Your task to perform on an android device: stop showing notifications on the lock screen Image 0: 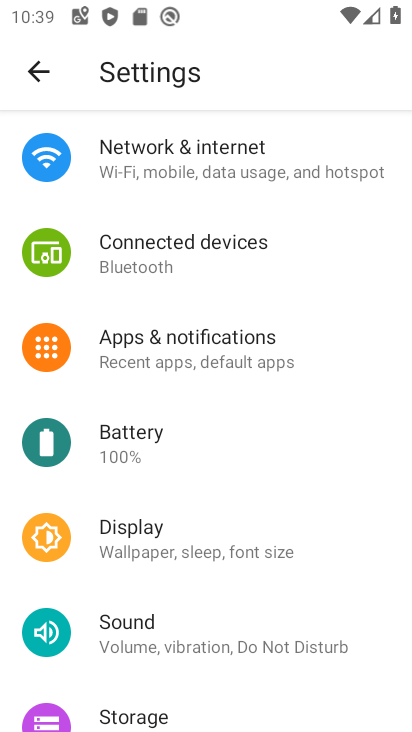
Step 0: click (198, 335)
Your task to perform on an android device: stop showing notifications on the lock screen Image 1: 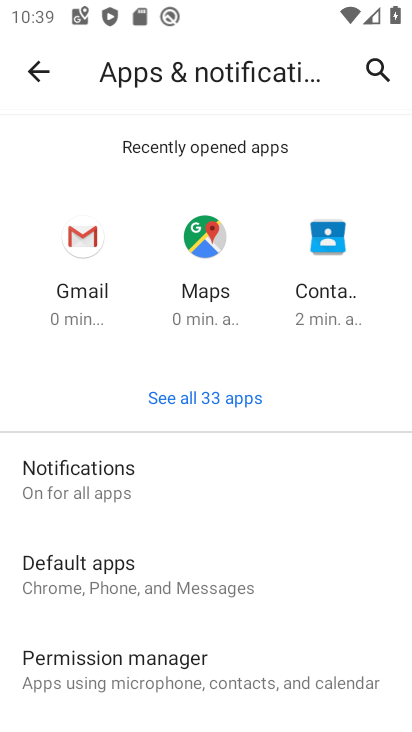
Step 1: click (149, 487)
Your task to perform on an android device: stop showing notifications on the lock screen Image 2: 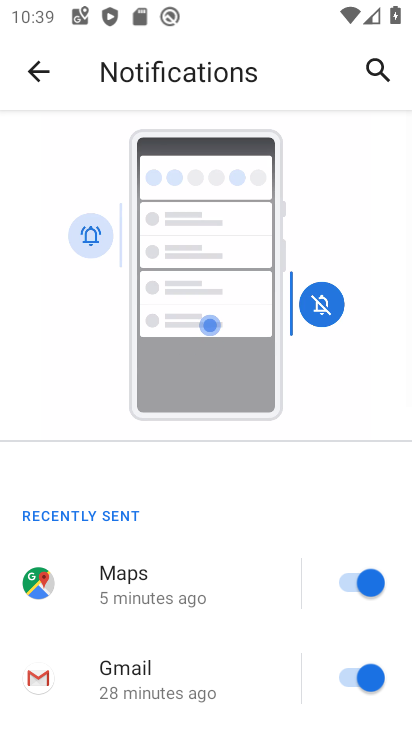
Step 2: drag from (242, 574) to (228, 169)
Your task to perform on an android device: stop showing notifications on the lock screen Image 3: 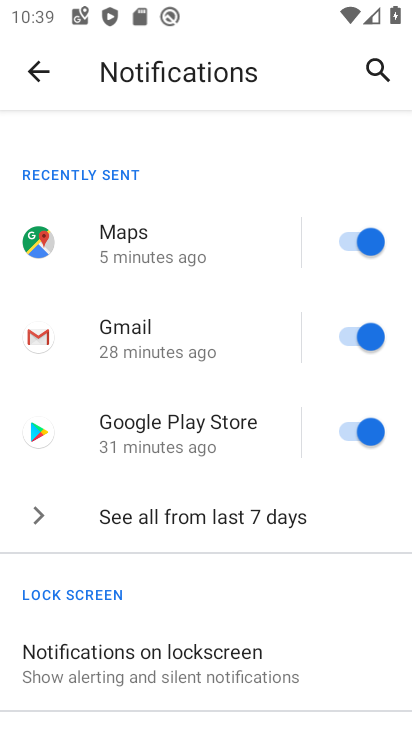
Step 3: drag from (218, 550) to (249, 166)
Your task to perform on an android device: stop showing notifications on the lock screen Image 4: 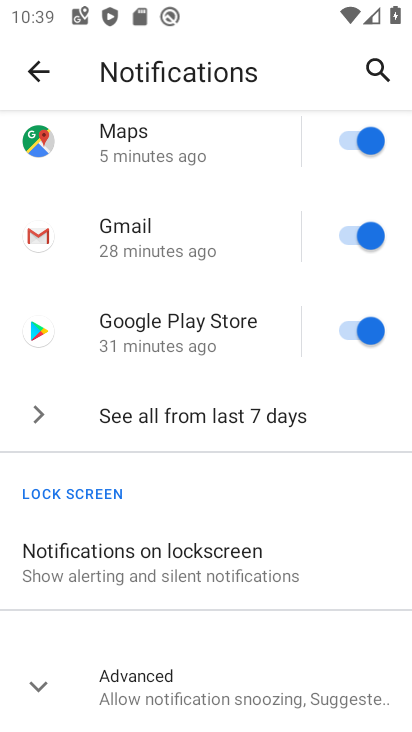
Step 4: click (191, 543)
Your task to perform on an android device: stop showing notifications on the lock screen Image 5: 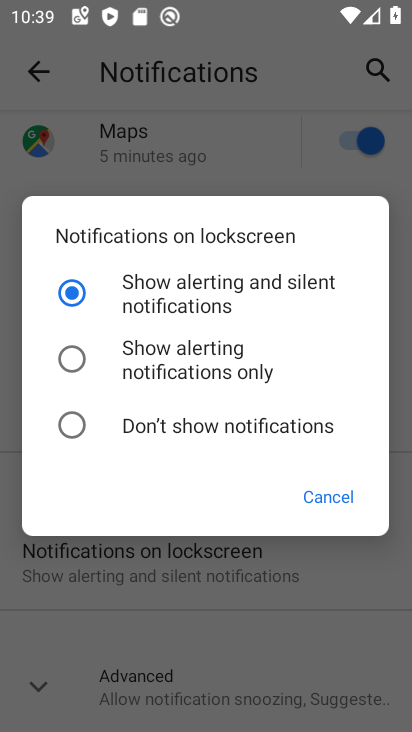
Step 5: click (178, 433)
Your task to perform on an android device: stop showing notifications on the lock screen Image 6: 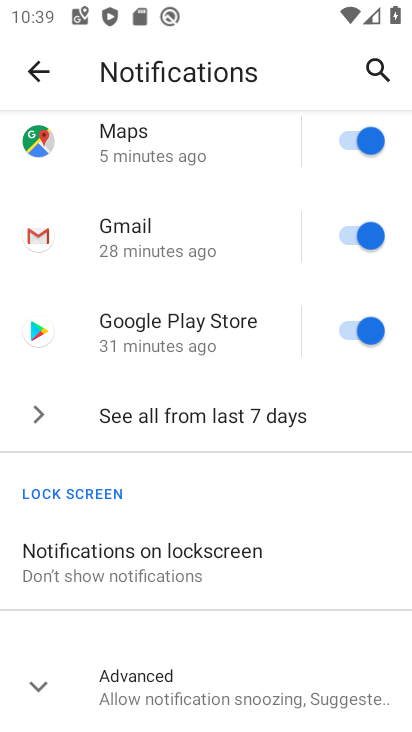
Step 6: task complete